Your task to perform on an android device: Search for pizza restaurants on Maps Image 0: 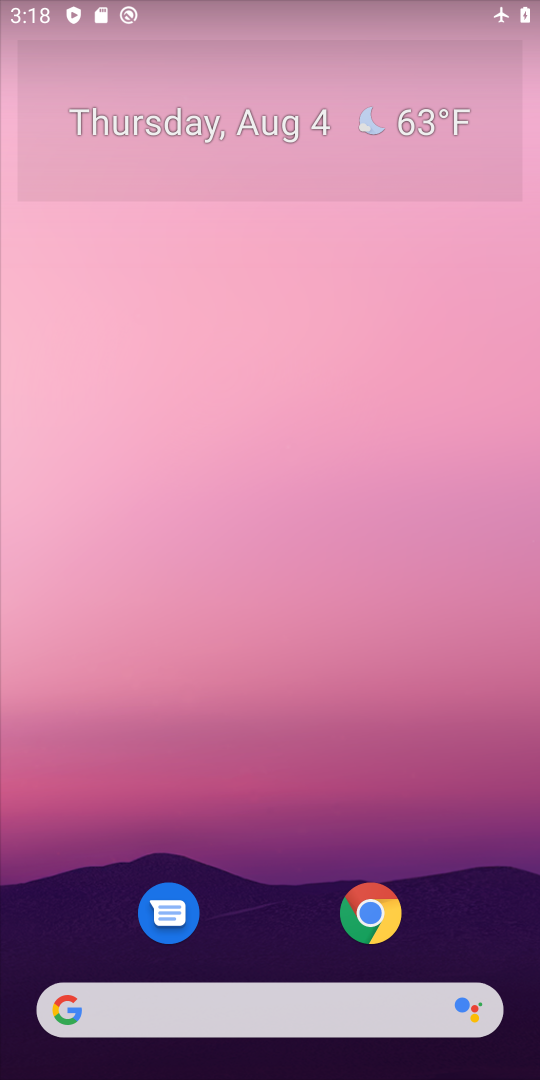
Step 0: drag from (286, 986) to (361, 1)
Your task to perform on an android device: Search for pizza restaurants on Maps Image 1: 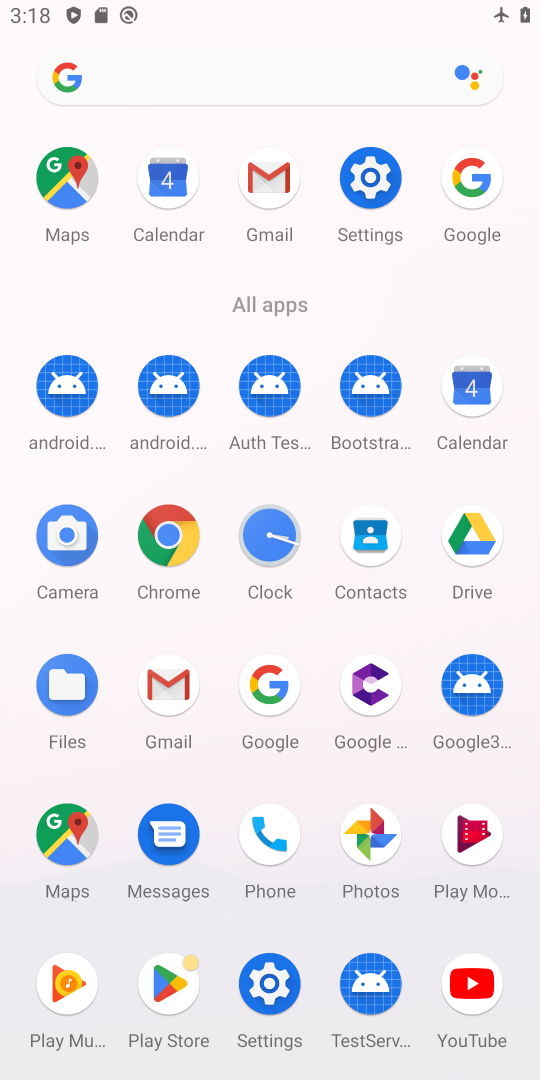
Step 1: click (80, 827)
Your task to perform on an android device: Search for pizza restaurants on Maps Image 2: 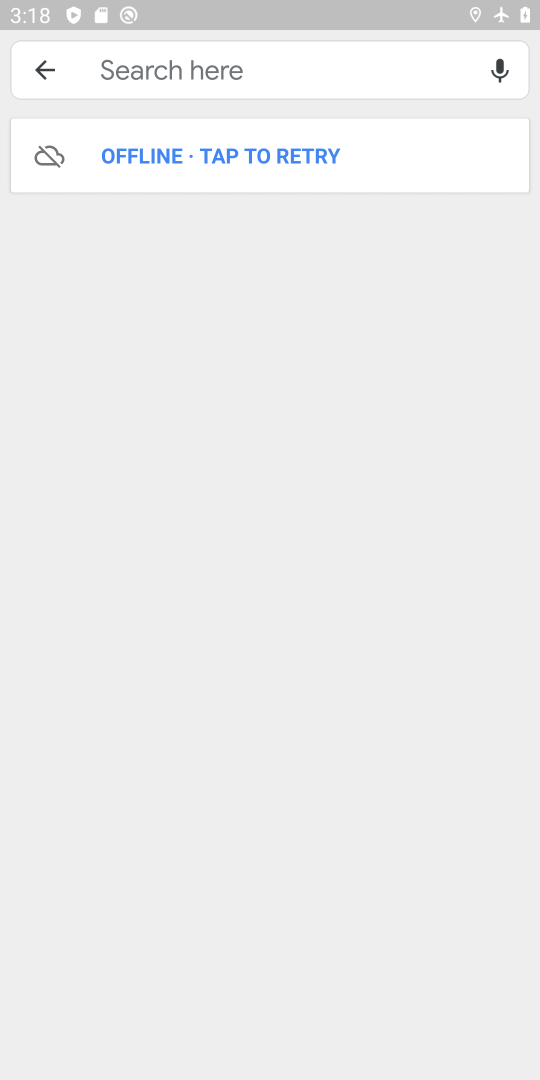
Step 2: click (290, 73)
Your task to perform on an android device: Search for pizza restaurants on Maps Image 3: 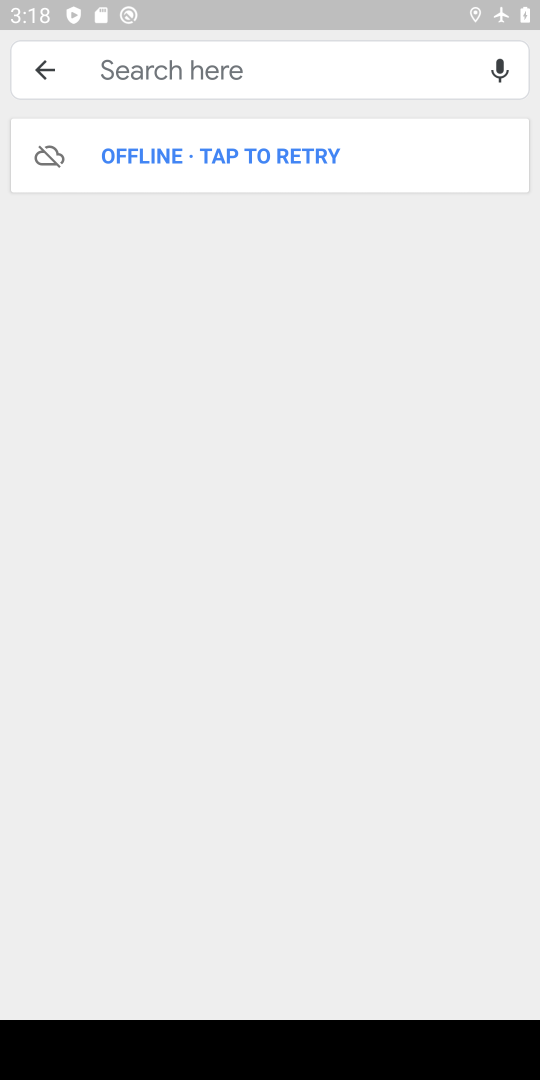
Step 3: type "pizza restaurant"
Your task to perform on an android device: Search for pizza restaurants on Maps Image 4: 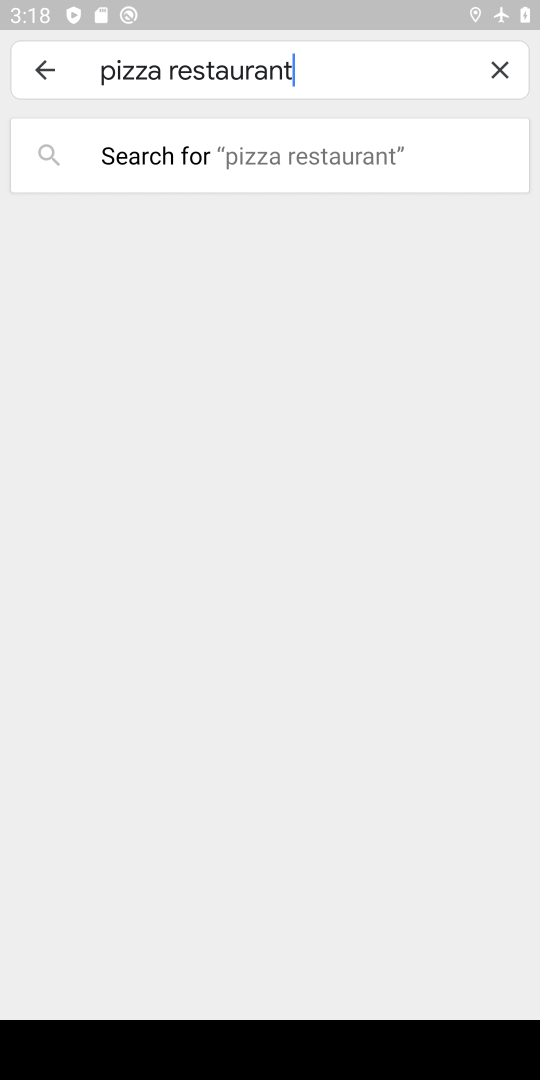
Step 4: press home button
Your task to perform on an android device: Search for pizza restaurants on Maps Image 5: 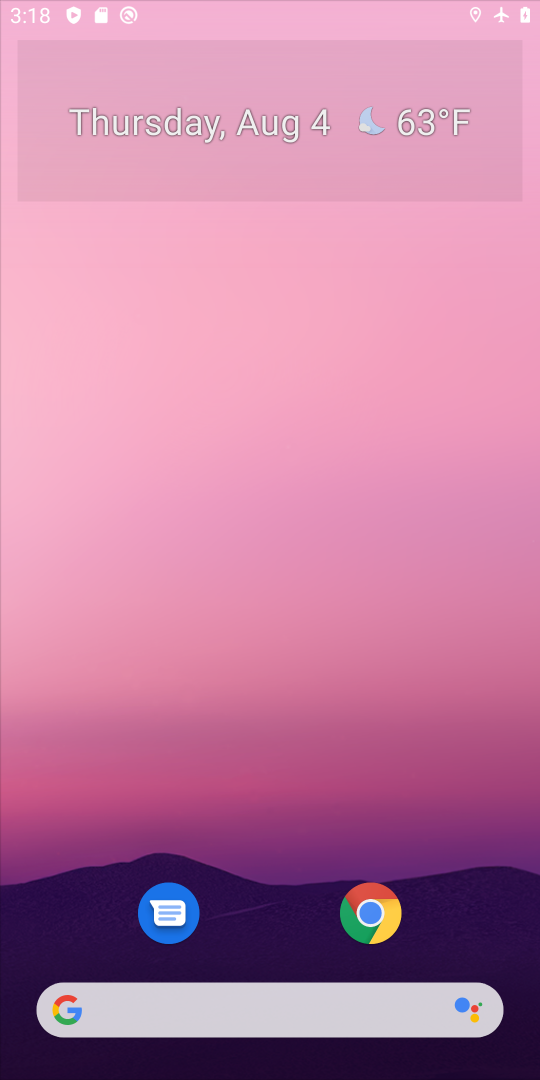
Step 5: drag from (272, 1027) to (323, 4)
Your task to perform on an android device: Search for pizza restaurants on Maps Image 6: 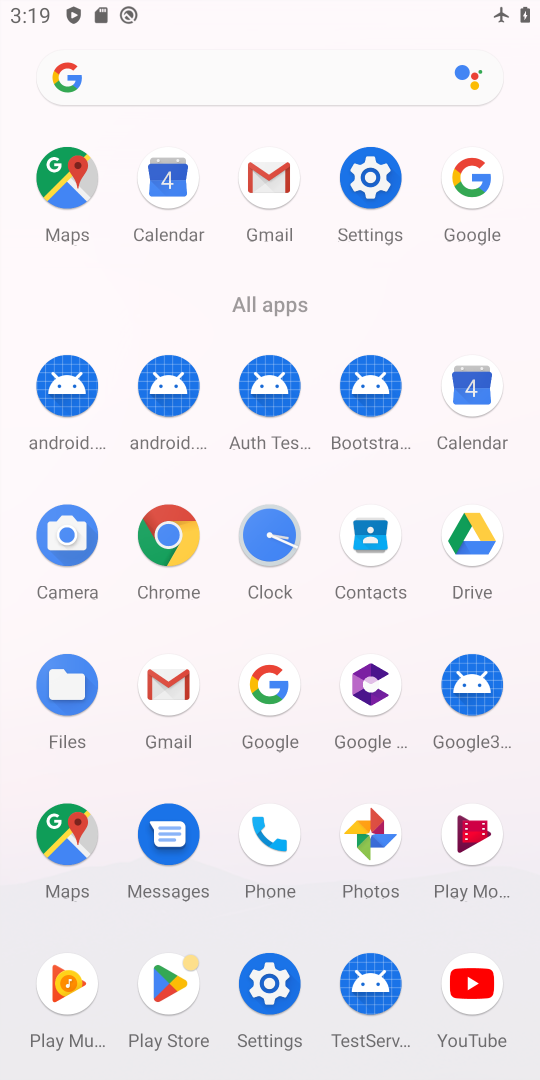
Step 6: click (387, 182)
Your task to perform on an android device: Search for pizza restaurants on Maps Image 7: 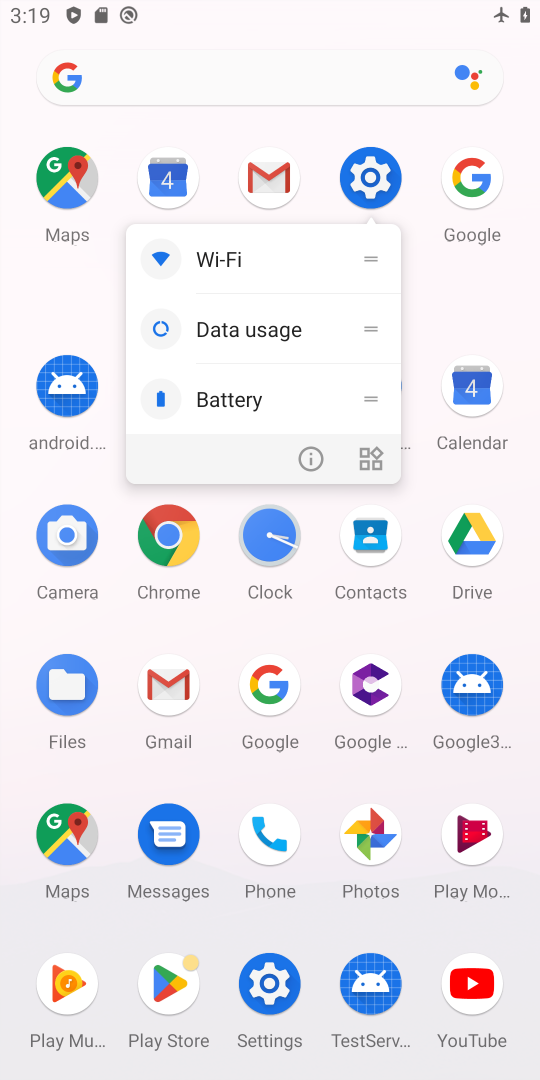
Step 7: click (373, 152)
Your task to perform on an android device: Search for pizza restaurants on Maps Image 8: 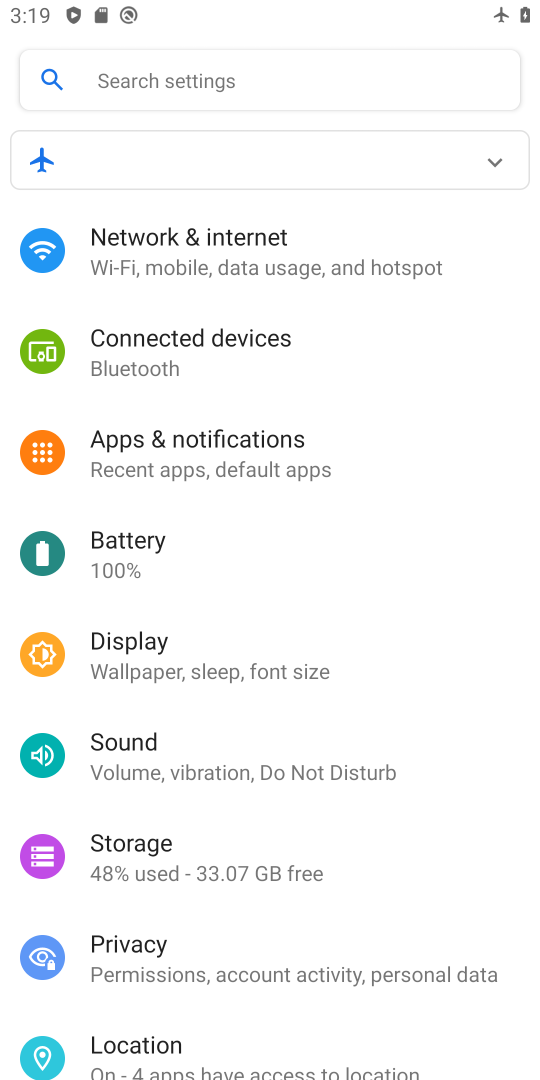
Step 8: click (280, 273)
Your task to perform on an android device: Search for pizza restaurants on Maps Image 9: 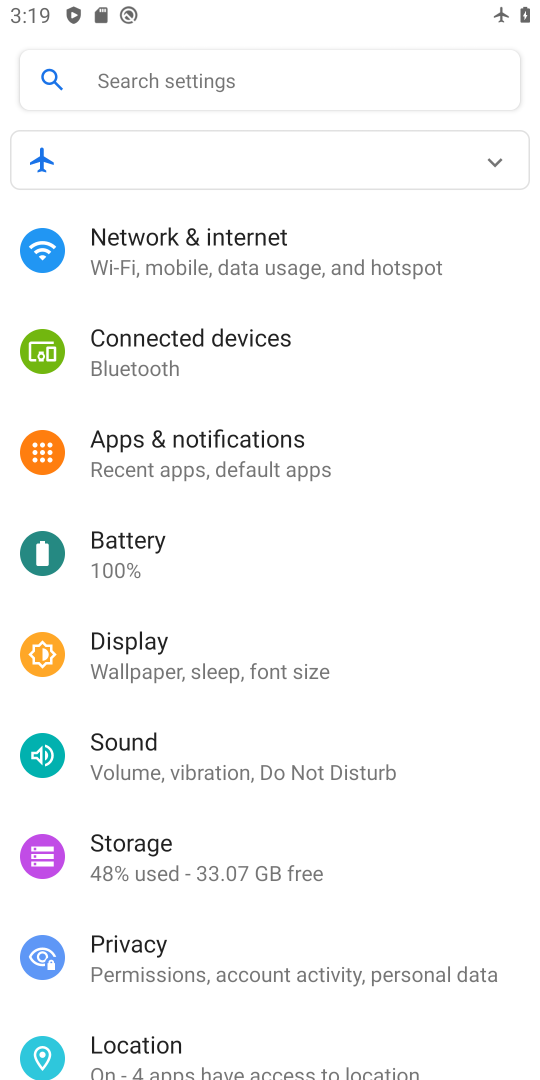
Step 9: click (280, 273)
Your task to perform on an android device: Search for pizza restaurants on Maps Image 10: 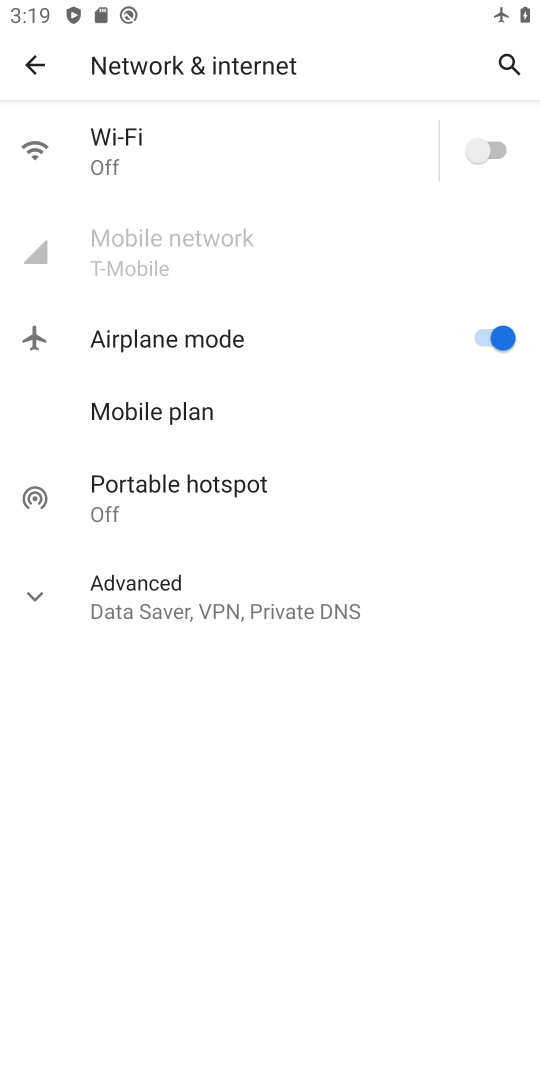
Step 10: click (494, 332)
Your task to perform on an android device: Search for pizza restaurants on Maps Image 11: 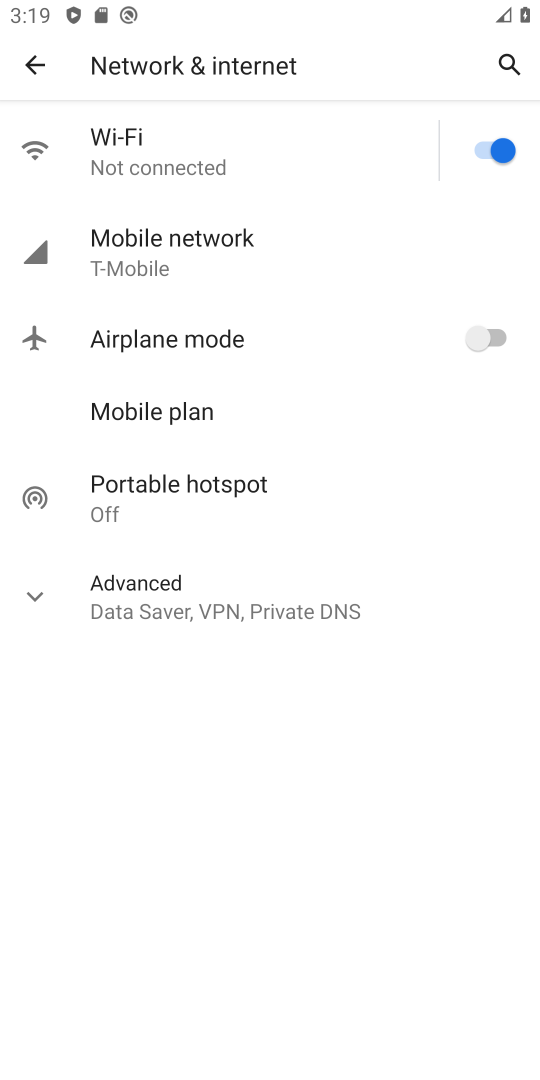
Step 11: task complete